Your task to perform on an android device: Open accessibility settings Image 0: 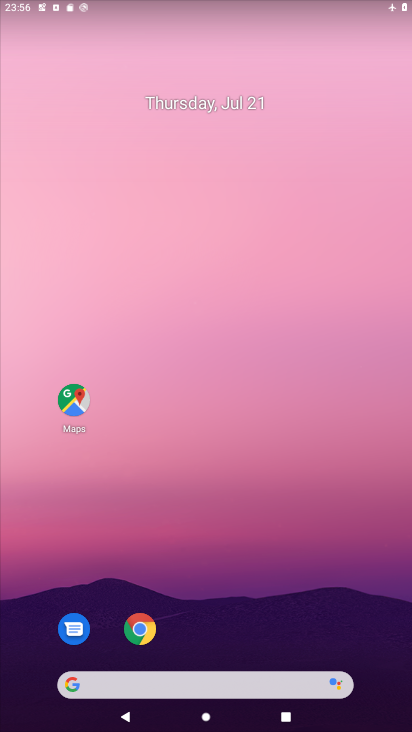
Step 0: drag from (191, 552) to (292, 7)
Your task to perform on an android device: Open accessibility settings Image 1: 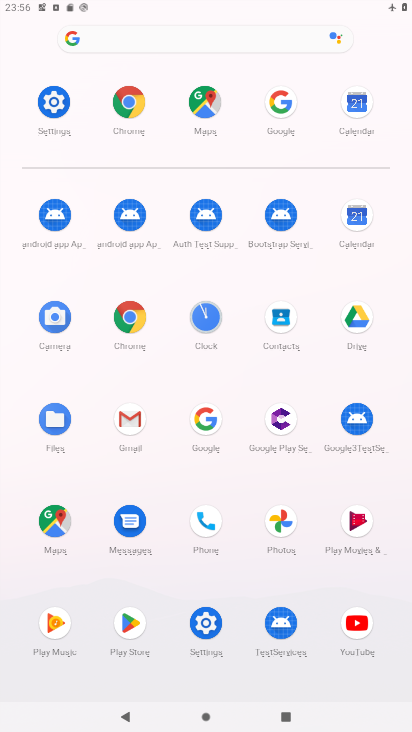
Step 1: click (221, 614)
Your task to perform on an android device: Open accessibility settings Image 2: 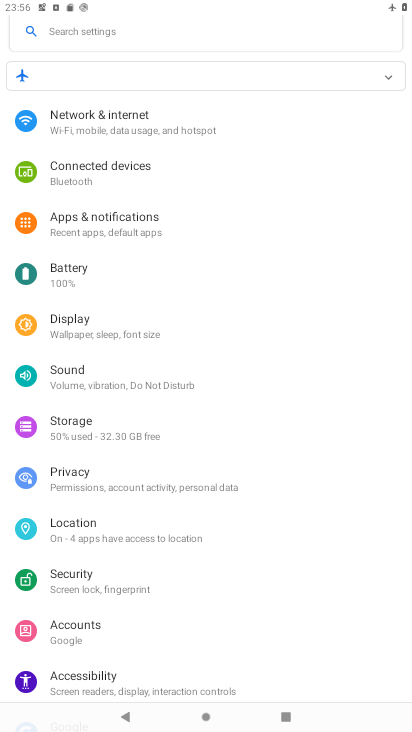
Step 2: drag from (390, 25) to (225, 325)
Your task to perform on an android device: Open accessibility settings Image 3: 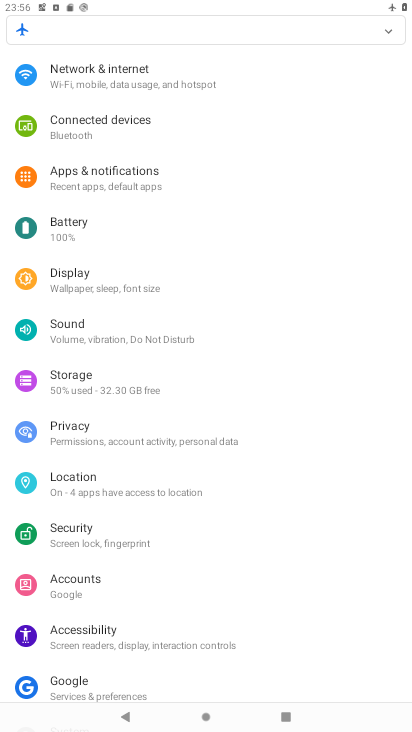
Step 3: click (108, 638)
Your task to perform on an android device: Open accessibility settings Image 4: 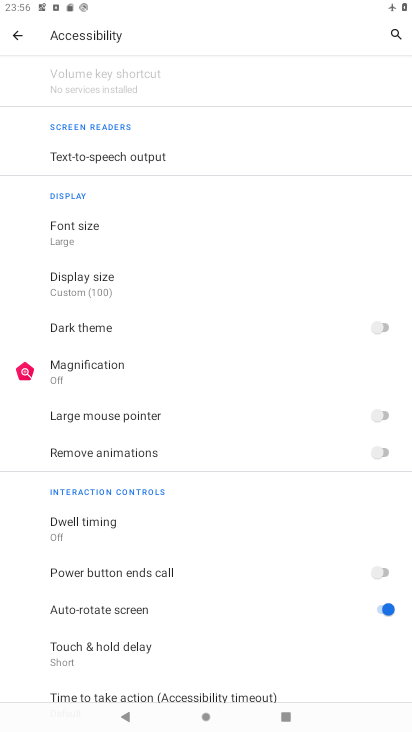
Step 4: task complete